Your task to perform on an android device: all mails in gmail Image 0: 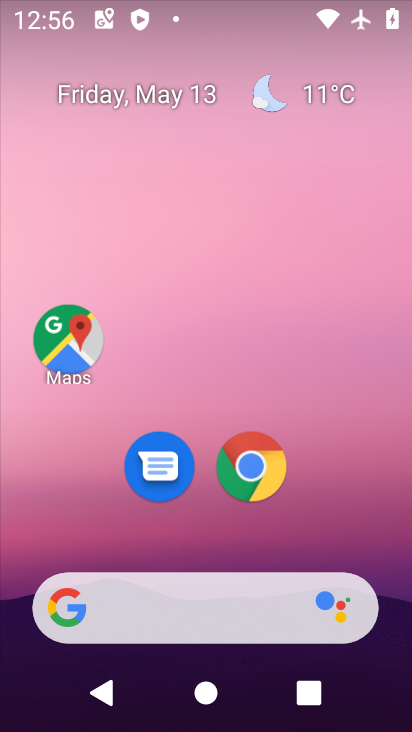
Step 0: drag from (285, 542) to (324, 17)
Your task to perform on an android device: all mails in gmail Image 1: 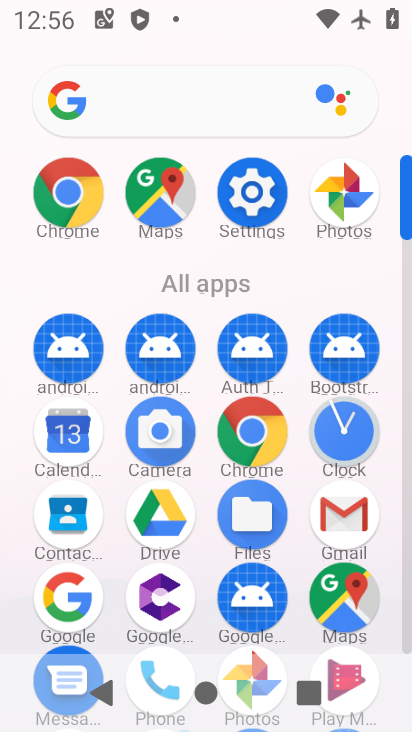
Step 1: click (349, 509)
Your task to perform on an android device: all mails in gmail Image 2: 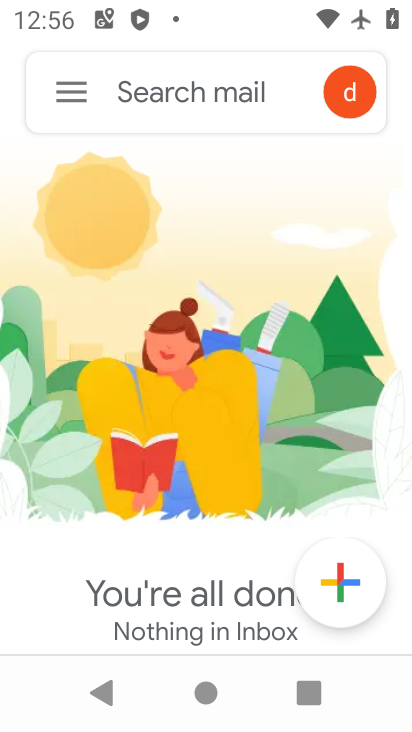
Step 2: click (74, 101)
Your task to perform on an android device: all mails in gmail Image 3: 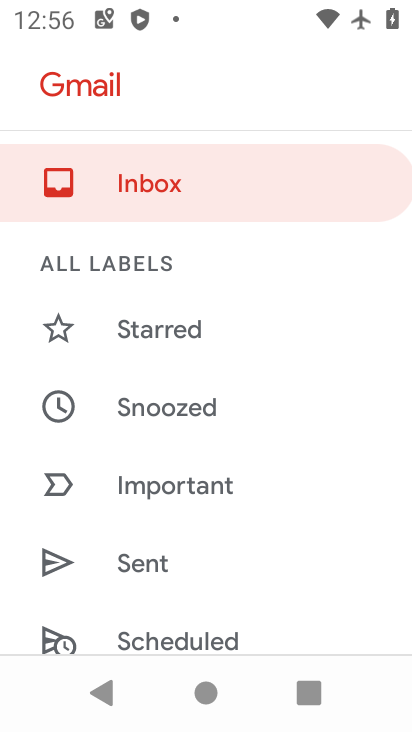
Step 3: drag from (177, 527) to (202, 205)
Your task to perform on an android device: all mails in gmail Image 4: 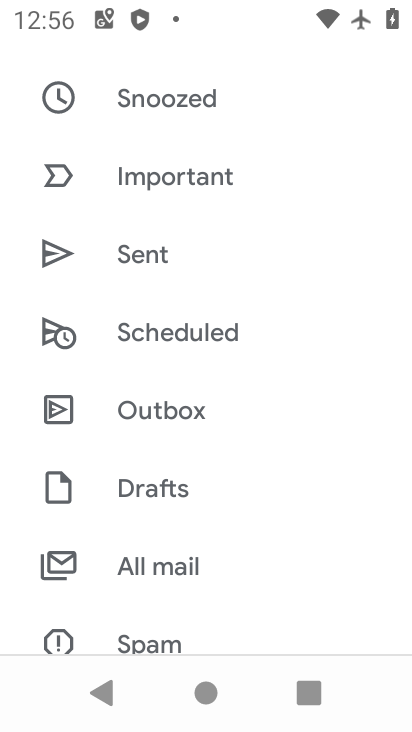
Step 4: click (239, 566)
Your task to perform on an android device: all mails in gmail Image 5: 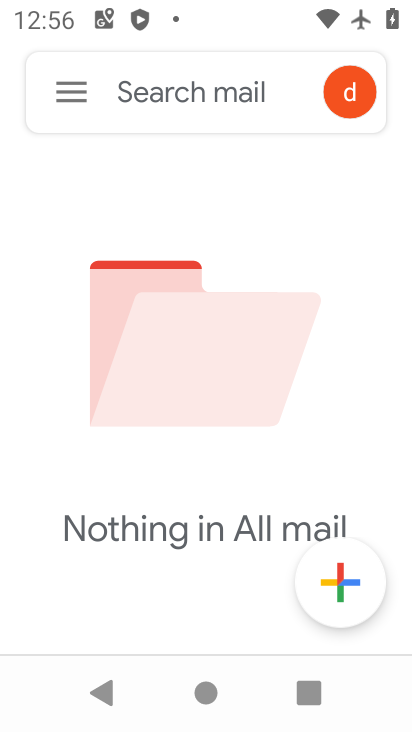
Step 5: task complete